Your task to perform on an android device: Show me popular videos on Youtube Image 0: 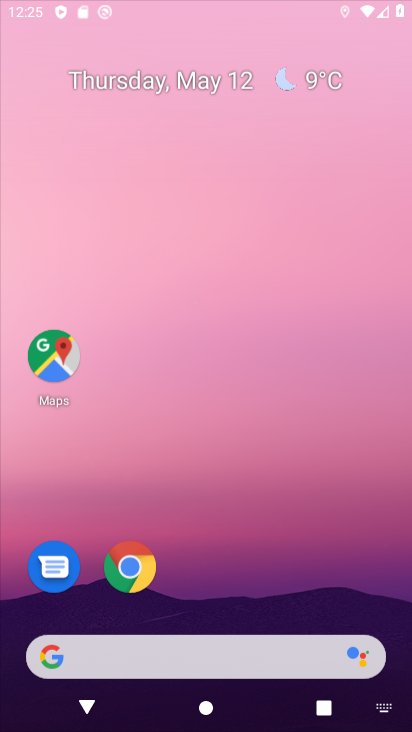
Step 0: drag from (286, 368) to (348, 110)
Your task to perform on an android device: Show me popular videos on Youtube Image 1: 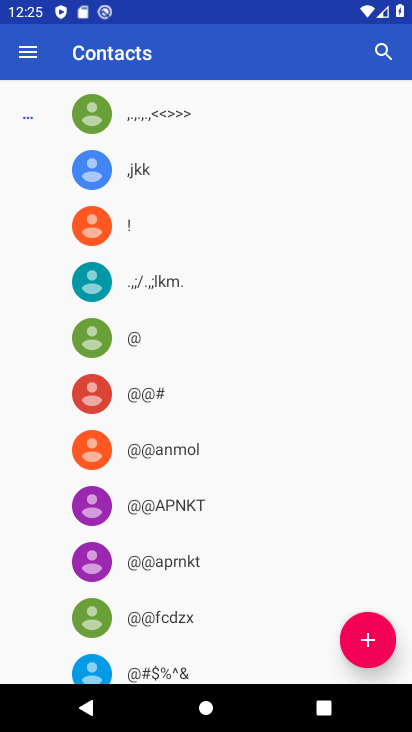
Step 1: press home button
Your task to perform on an android device: Show me popular videos on Youtube Image 2: 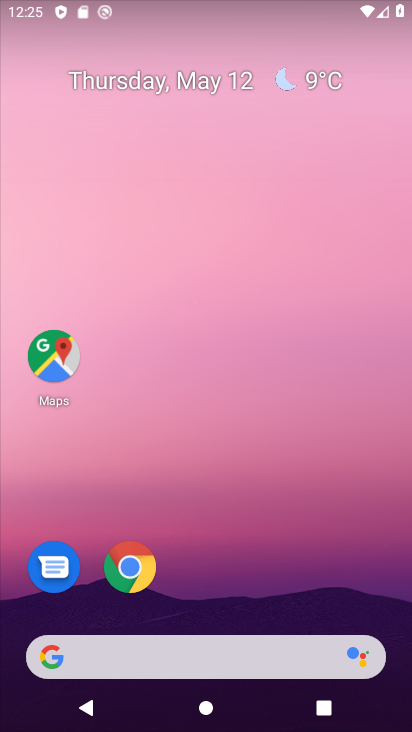
Step 2: drag from (205, 633) to (330, 52)
Your task to perform on an android device: Show me popular videos on Youtube Image 3: 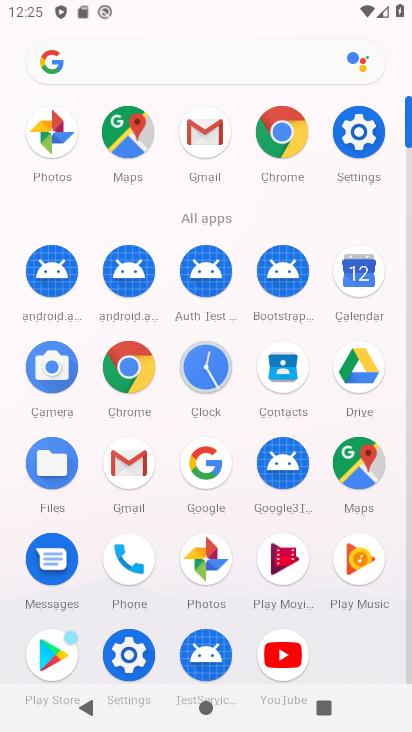
Step 3: click (313, 648)
Your task to perform on an android device: Show me popular videos on Youtube Image 4: 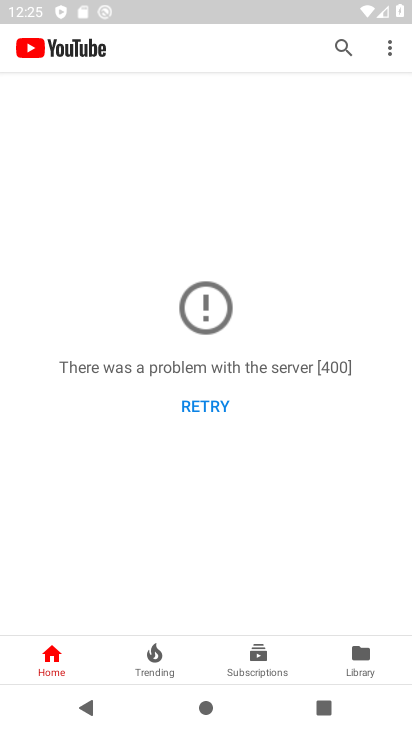
Step 4: task complete